Your task to perform on an android device: Open maps Image 0: 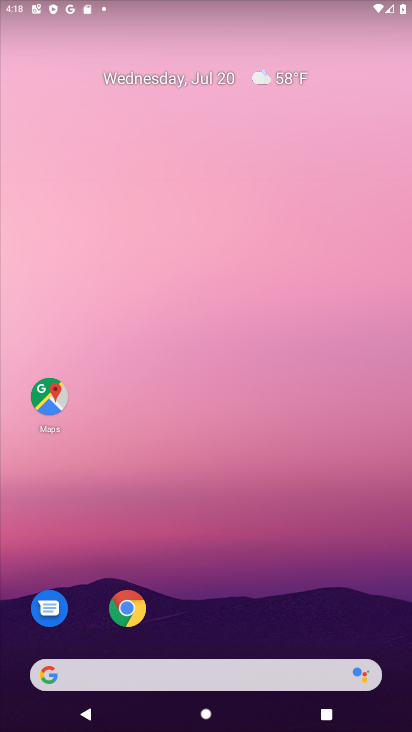
Step 0: click (52, 414)
Your task to perform on an android device: Open maps Image 1: 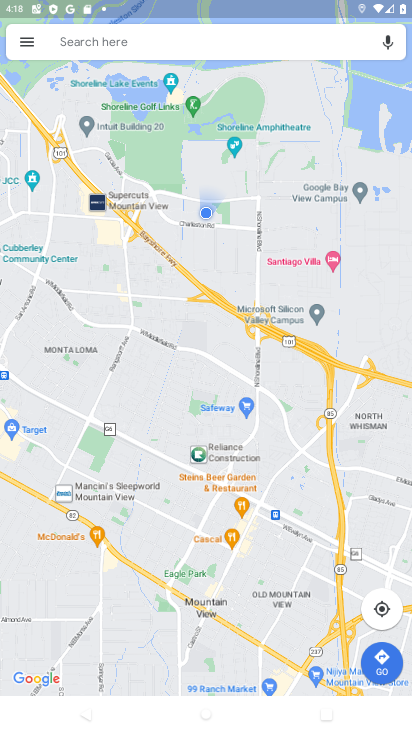
Step 1: task complete